Your task to perform on an android device: turn off improve location accuracy Image 0: 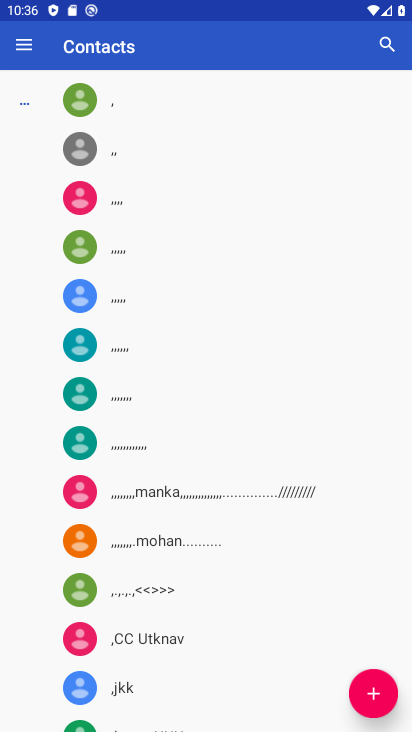
Step 0: press home button
Your task to perform on an android device: turn off improve location accuracy Image 1: 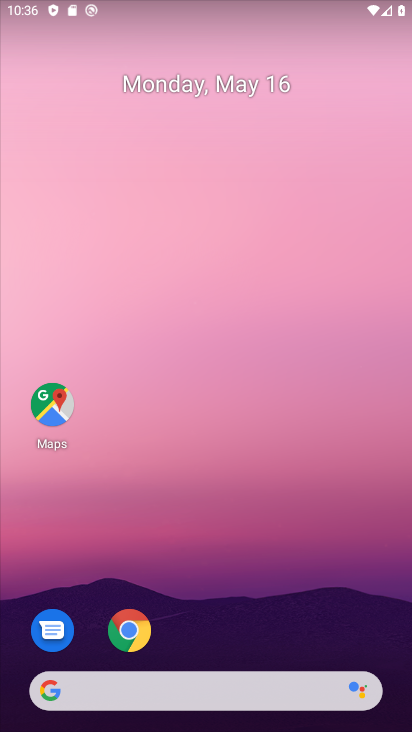
Step 1: drag from (236, 619) to (196, 97)
Your task to perform on an android device: turn off improve location accuracy Image 2: 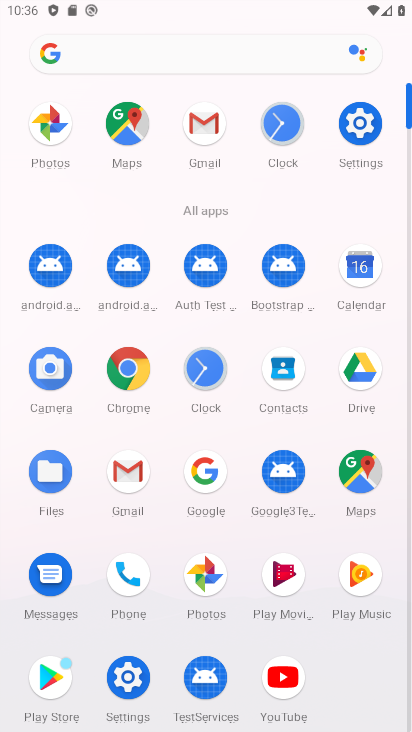
Step 2: click (363, 123)
Your task to perform on an android device: turn off improve location accuracy Image 3: 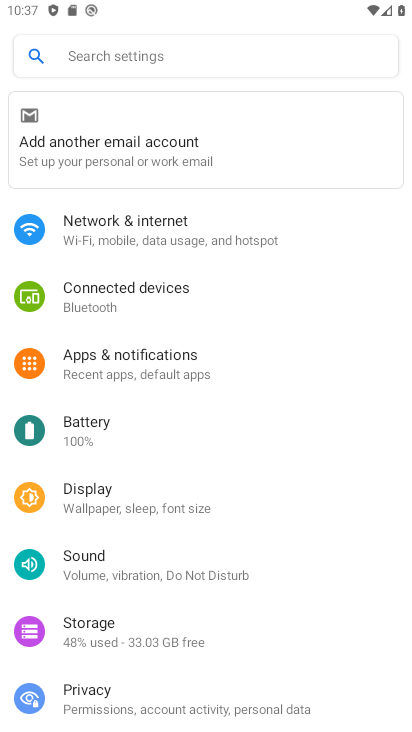
Step 3: drag from (179, 717) to (154, 244)
Your task to perform on an android device: turn off improve location accuracy Image 4: 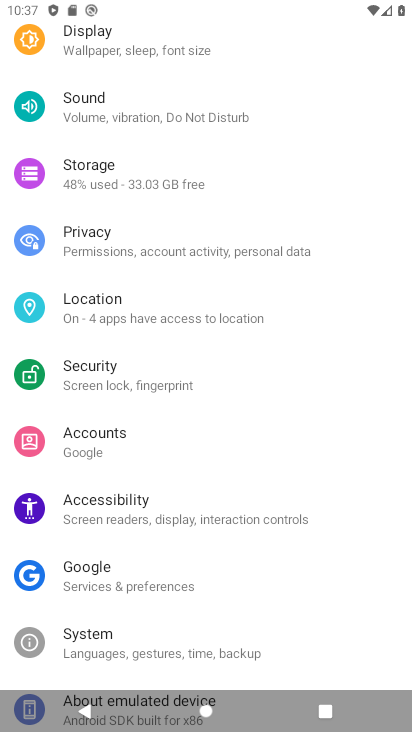
Step 4: click (147, 305)
Your task to perform on an android device: turn off improve location accuracy Image 5: 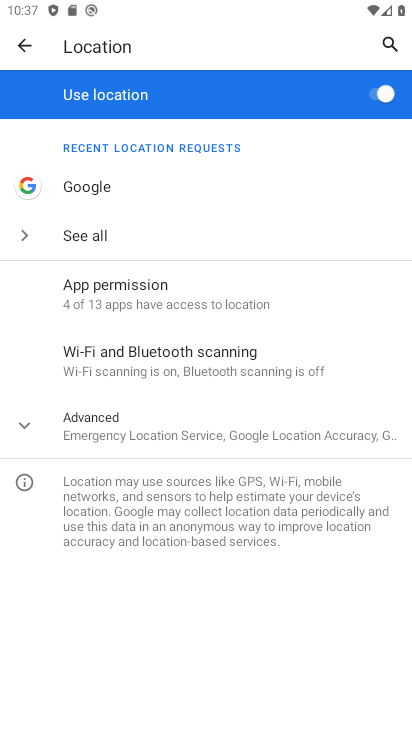
Step 5: click (170, 439)
Your task to perform on an android device: turn off improve location accuracy Image 6: 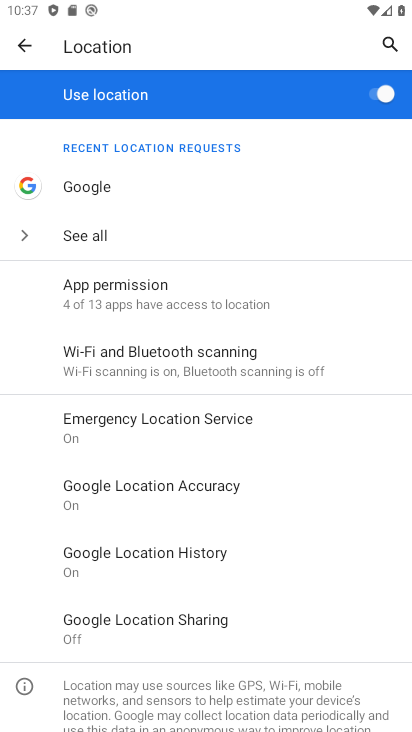
Step 6: click (214, 486)
Your task to perform on an android device: turn off improve location accuracy Image 7: 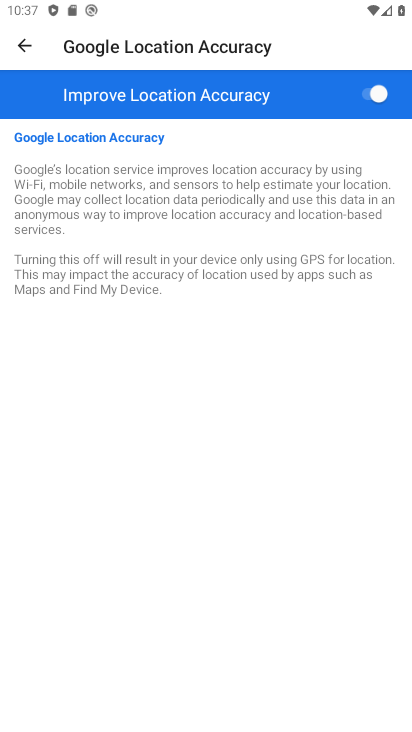
Step 7: click (370, 98)
Your task to perform on an android device: turn off improve location accuracy Image 8: 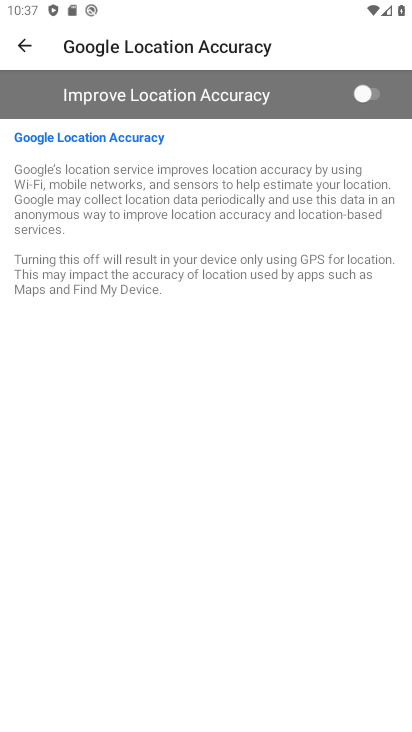
Step 8: task complete